Your task to perform on an android device: check battery use Image 0: 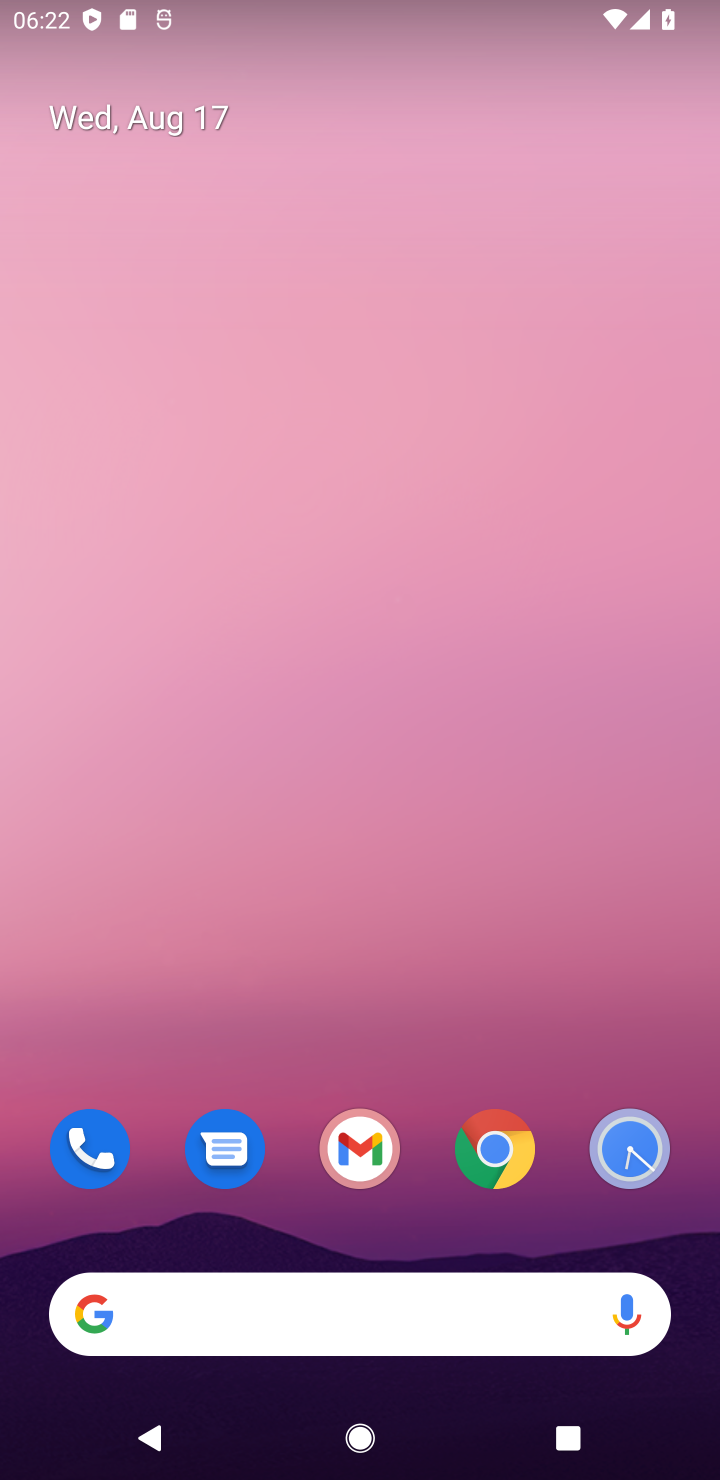
Step 0: drag from (447, 1018) to (417, 274)
Your task to perform on an android device: check battery use Image 1: 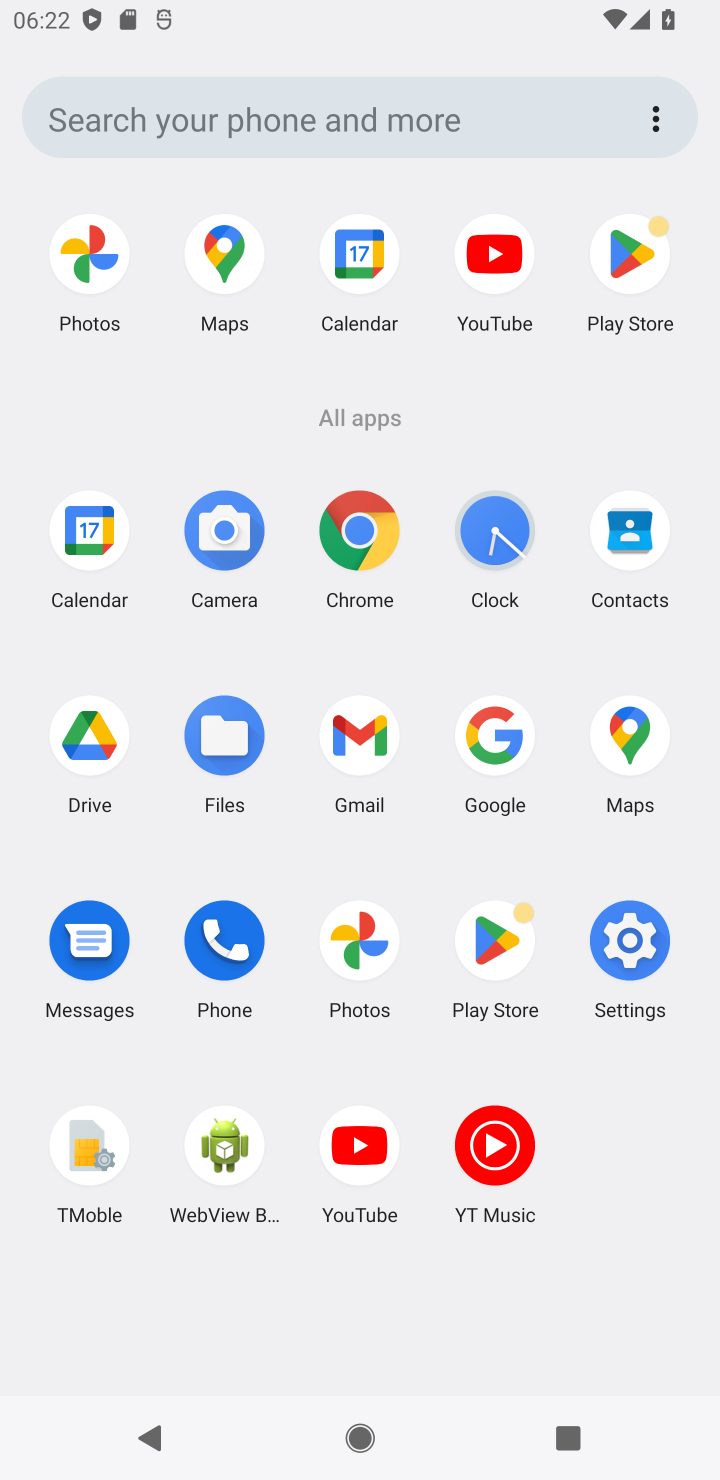
Step 1: click (631, 951)
Your task to perform on an android device: check battery use Image 2: 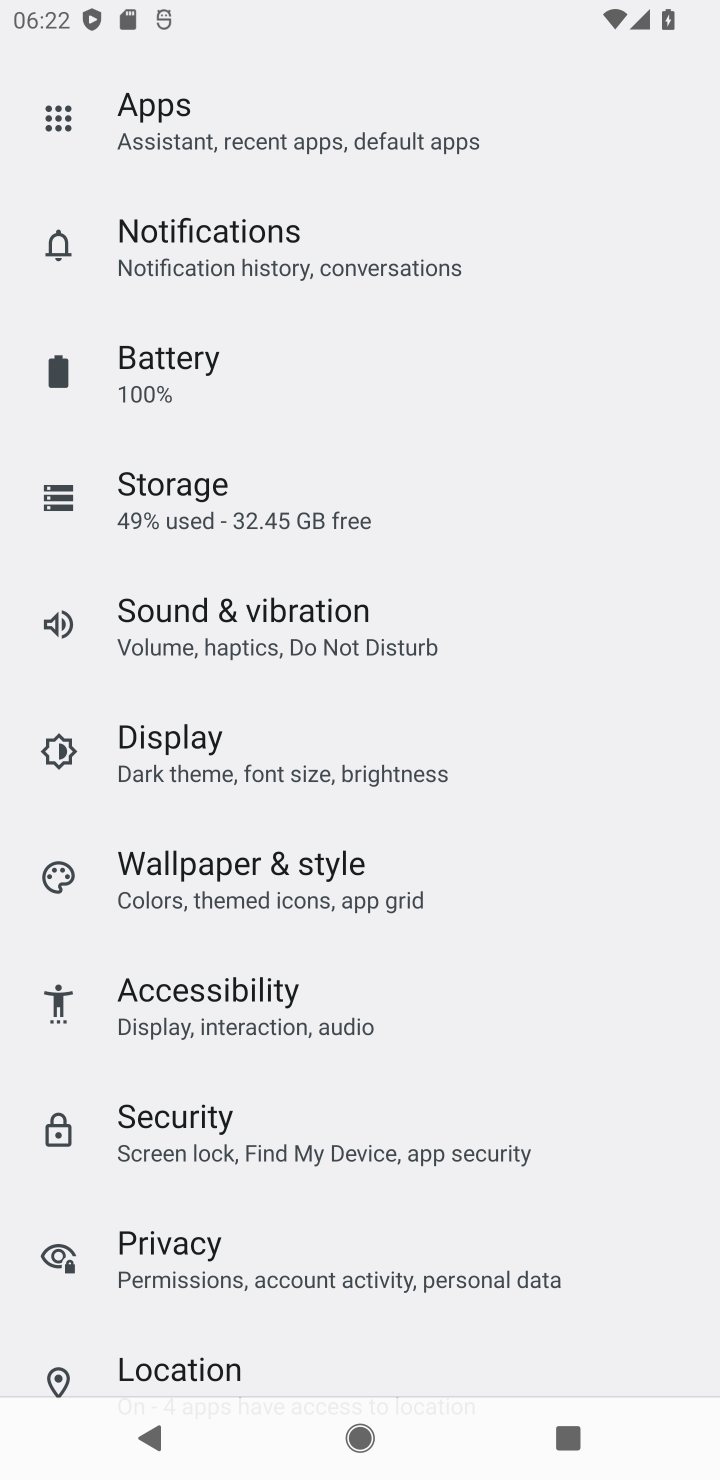
Step 2: click (165, 365)
Your task to perform on an android device: check battery use Image 3: 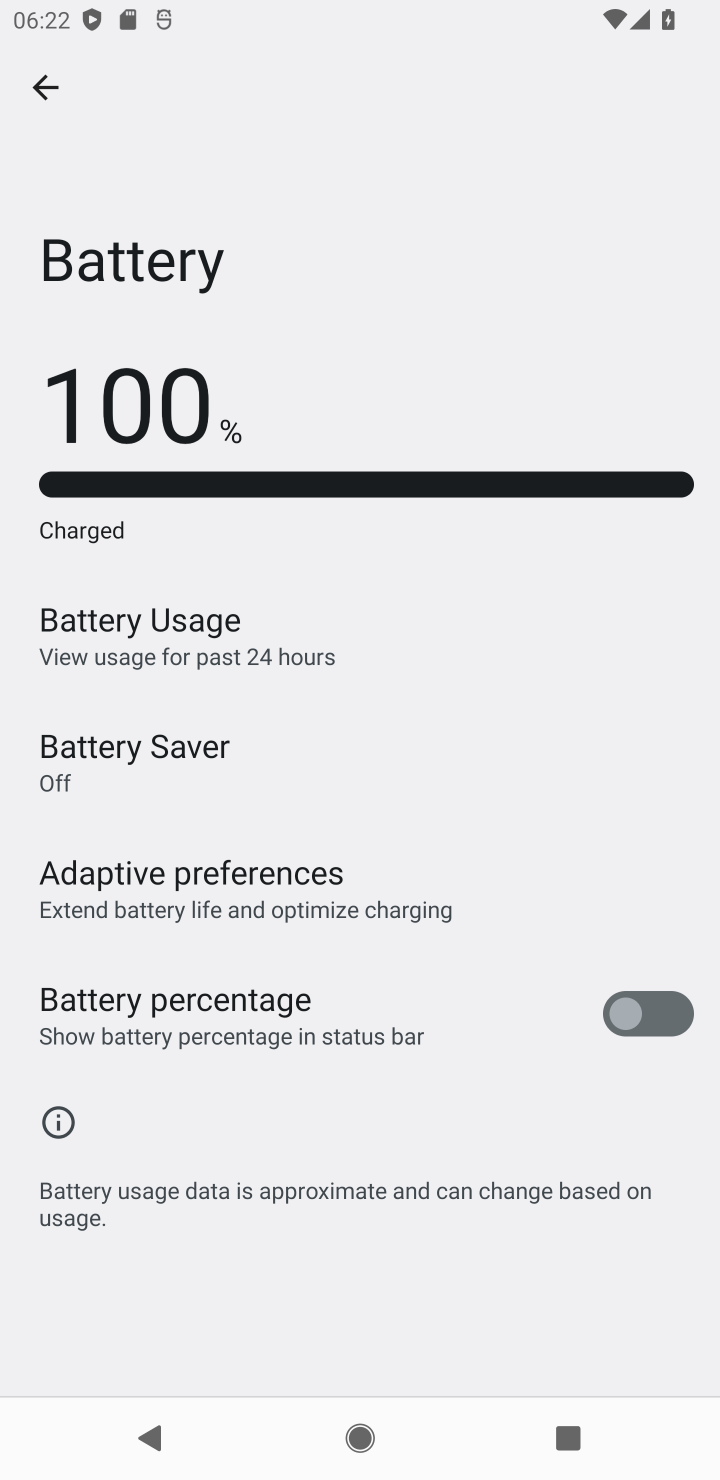
Step 3: task complete